Your task to perform on an android device: Open Google Chrome Image 0: 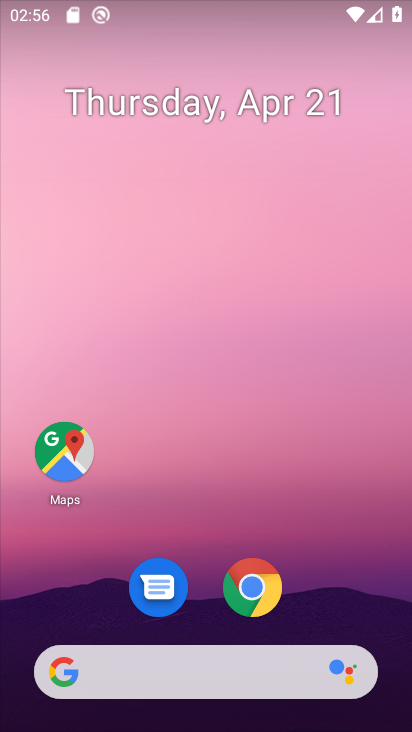
Step 0: drag from (346, 570) to (357, 220)
Your task to perform on an android device: Open Google Chrome Image 1: 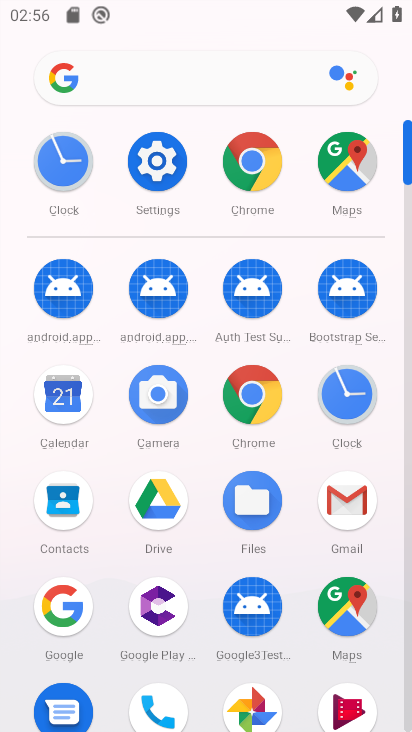
Step 1: drag from (290, 548) to (292, 353)
Your task to perform on an android device: Open Google Chrome Image 2: 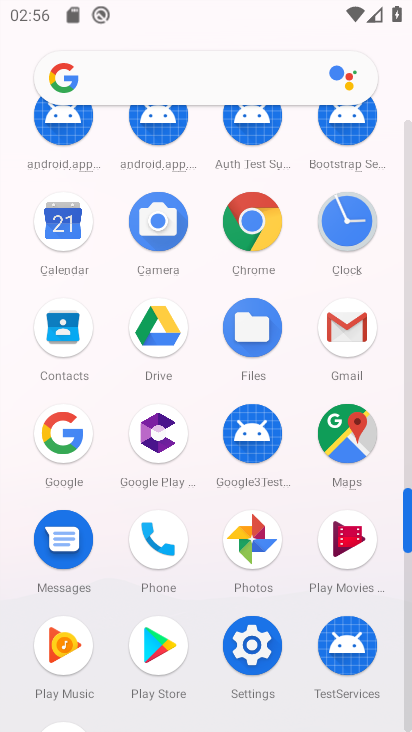
Step 2: click (259, 226)
Your task to perform on an android device: Open Google Chrome Image 3: 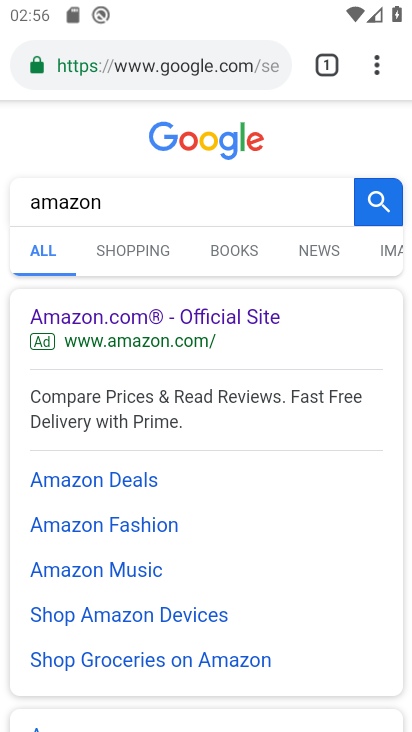
Step 3: task complete